Your task to perform on an android device: Set the phone to "Do not disturb". Image 0: 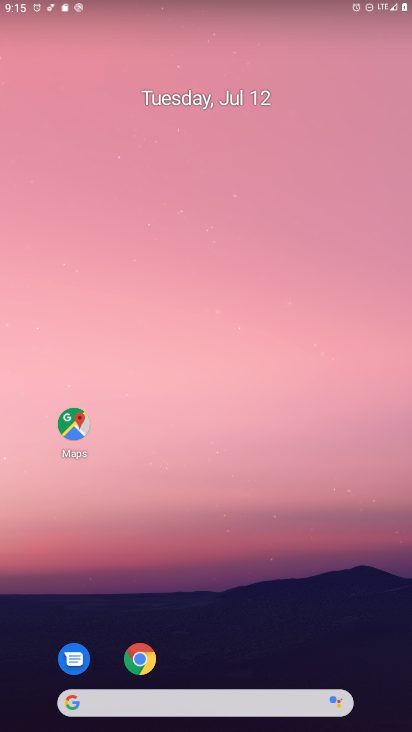
Step 0: drag from (206, 705) to (170, 320)
Your task to perform on an android device: Set the phone to "Do not disturb". Image 1: 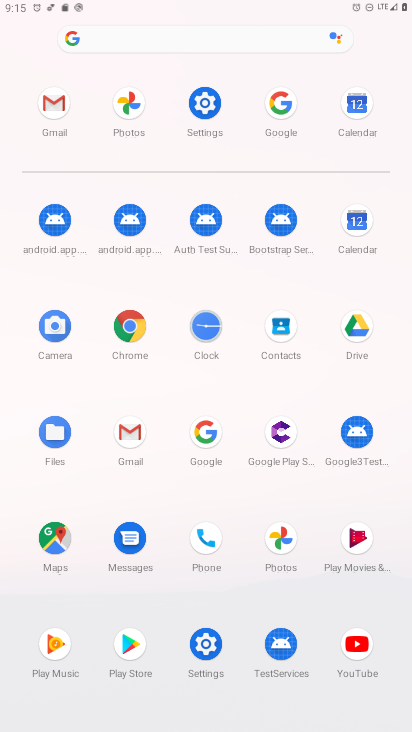
Step 1: click (203, 102)
Your task to perform on an android device: Set the phone to "Do not disturb". Image 2: 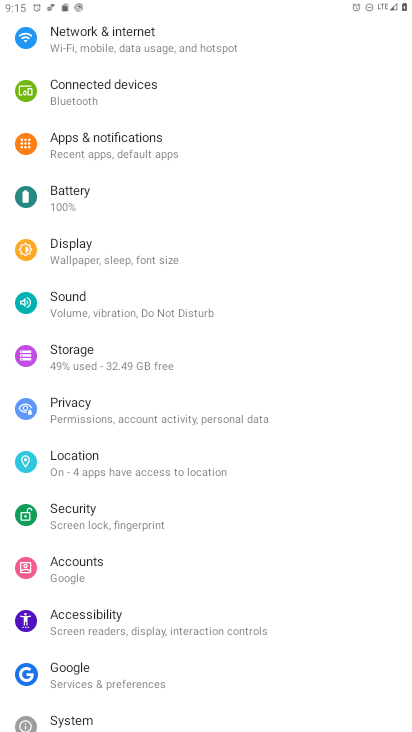
Step 2: click (144, 313)
Your task to perform on an android device: Set the phone to "Do not disturb". Image 3: 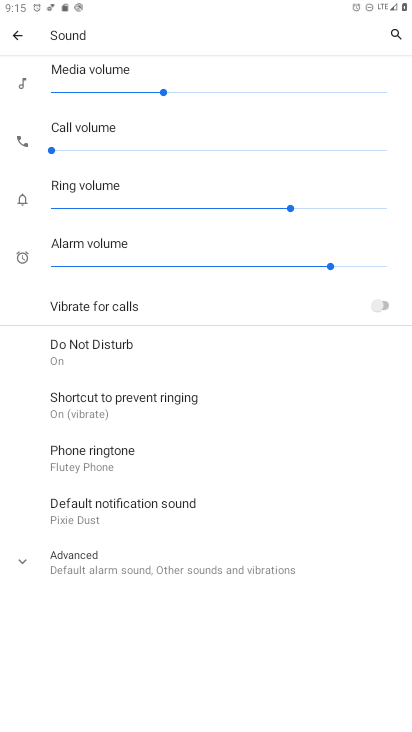
Step 3: click (128, 342)
Your task to perform on an android device: Set the phone to "Do not disturb". Image 4: 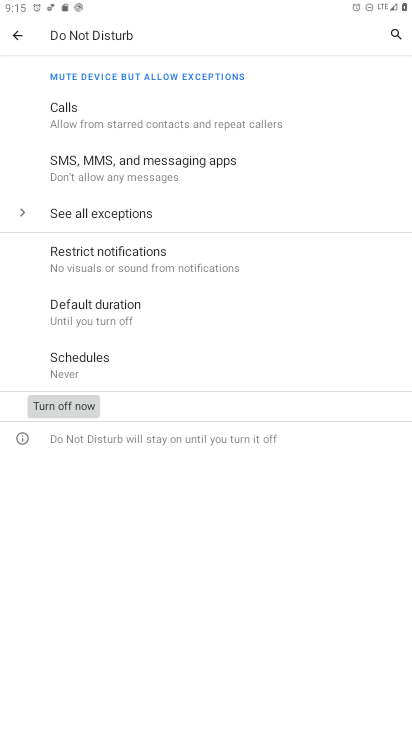
Step 4: task complete